Your task to perform on an android device: Show the shopping cart on target. Image 0: 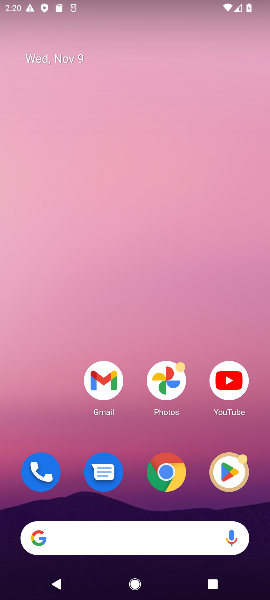
Step 0: click (120, 249)
Your task to perform on an android device: Show the shopping cart on target. Image 1: 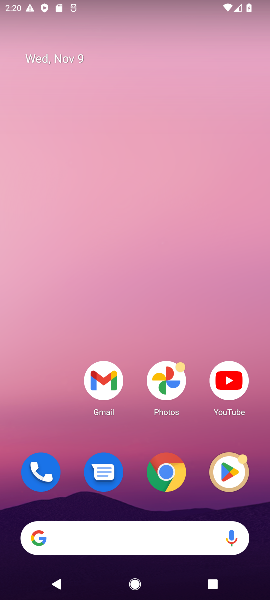
Step 1: click (139, 537)
Your task to perform on an android device: Show the shopping cart on target. Image 2: 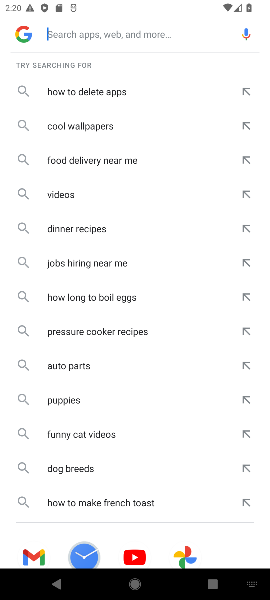
Step 2: type "target"
Your task to perform on an android device: Show the shopping cart on target. Image 3: 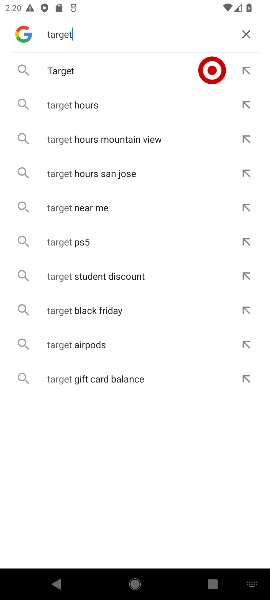
Step 3: click (66, 70)
Your task to perform on an android device: Show the shopping cart on target. Image 4: 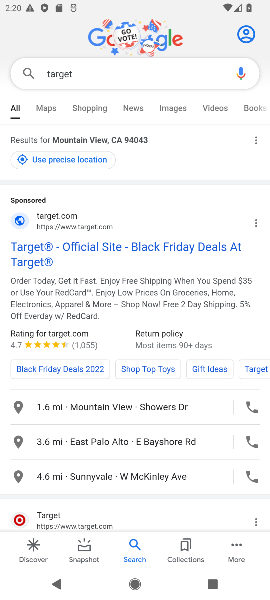
Step 4: click (58, 216)
Your task to perform on an android device: Show the shopping cart on target. Image 5: 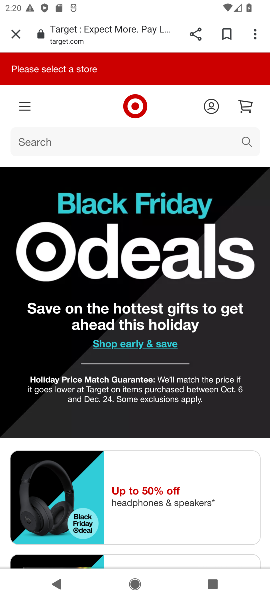
Step 5: task complete